Your task to perform on an android device: find which apps use the phone's location Image 0: 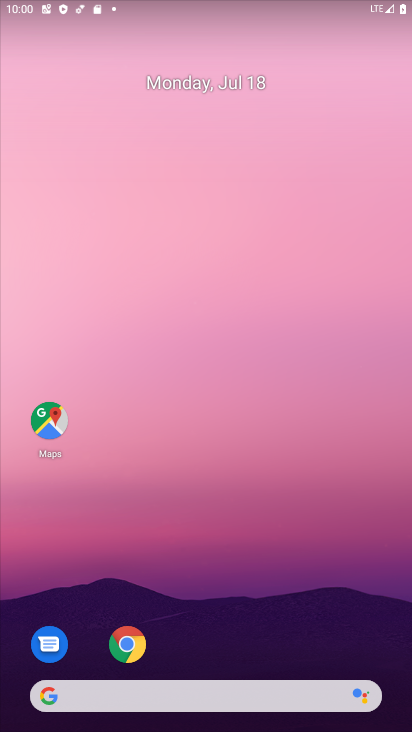
Step 0: drag from (365, 614) to (367, 124)
Your task to perform on an android device: find which apps use the phone's location Image 1: 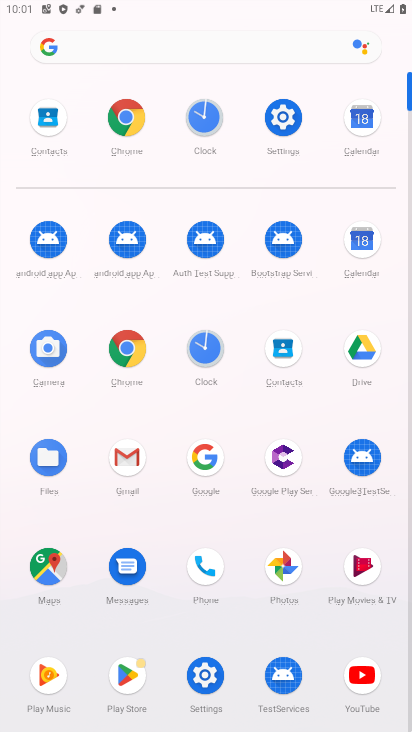
Step 1: click (286, 113)
Your task to perform on an android device: find which apps use the phone's location Image 2: 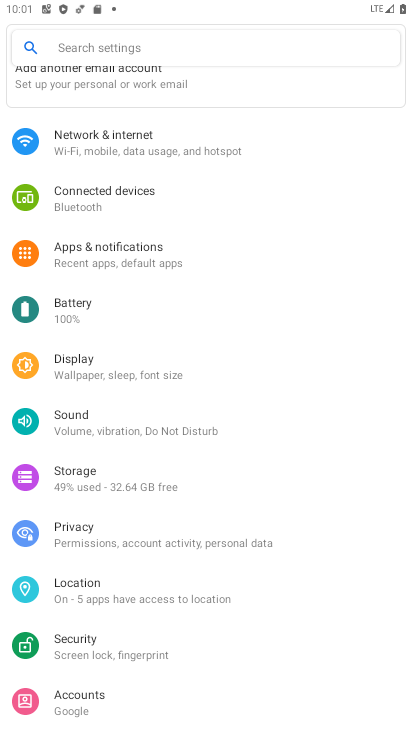
Step 2: drag from (327, 364) to (331, 295)
Your task to perform on an android device: find which apps use the phone's location Image 3: 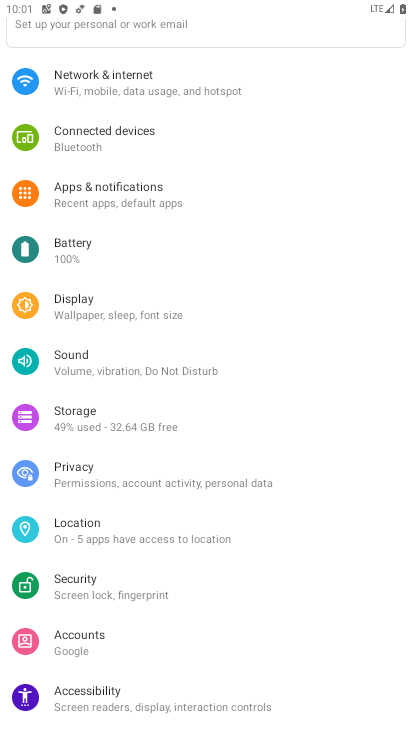
Step 3: drag from (337, 415) to (333, 334)
Your task to perform on an android device: find which apps use the phone's location Image 4: 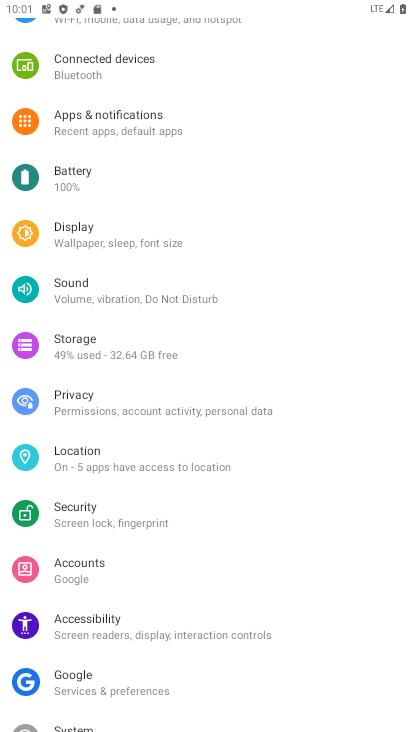
Step 4: drag from (318, 441) to (324, 359)
Your task to perform on an android device: find which apps use the phone's location Image 5: 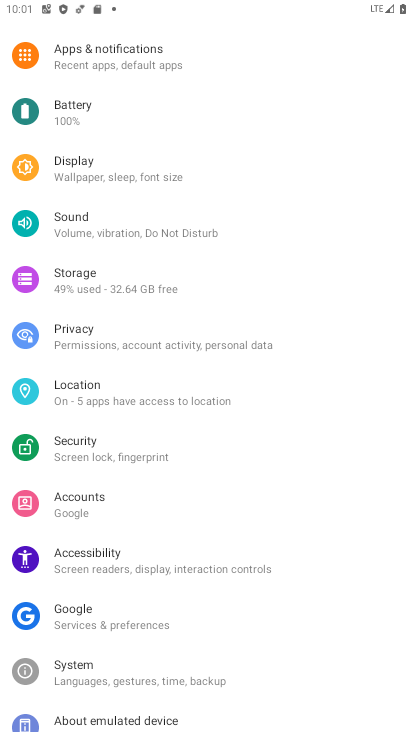
Step 5: drag from (316, 450) to (328, 356)
Your task to perform on an android device: find which apps use the phone's location Image 6: 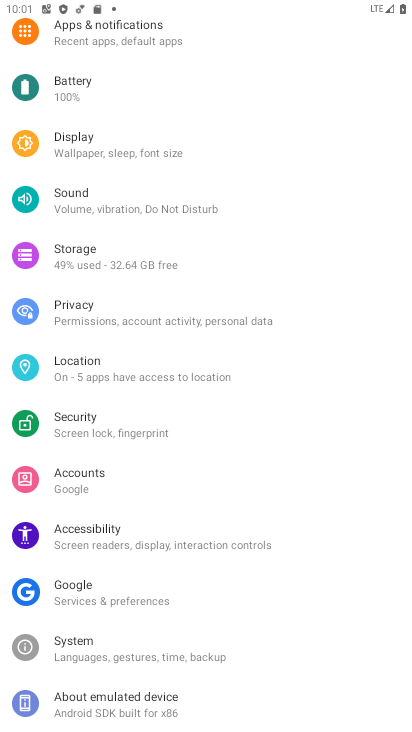
Step 6: click (260, 368)
Your task to perform on an android device: find which apps use the phone's location Image 7: 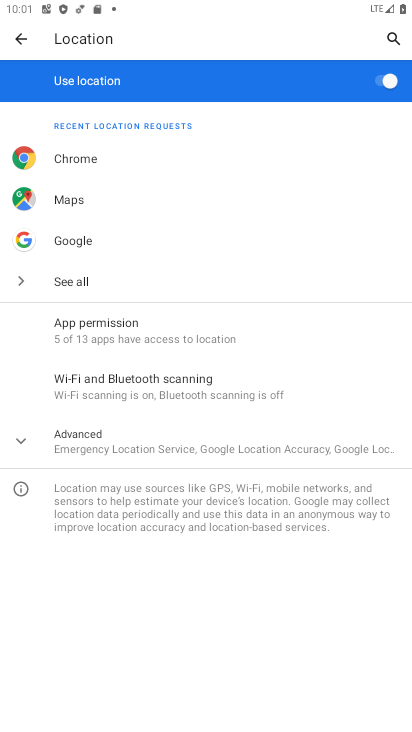
Step 7: click (226, 351)
Your task to perform on an android device: find which apps use the phone's location Image 8: 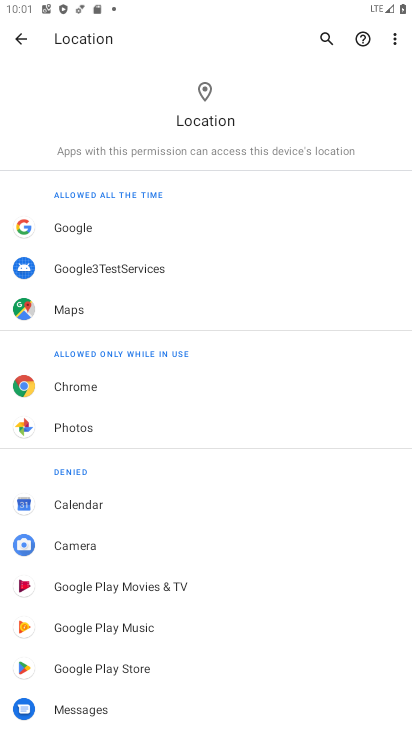
Step 8: click (178, 432)
Your task to perform on an android device: find which apps use the phone's location Image 9: 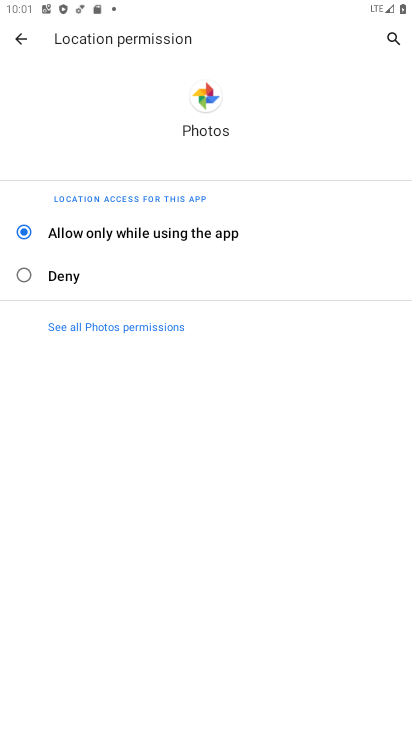
Step 9: task complete